Your task to perform on an android device: empty trash in google photos Image 0: 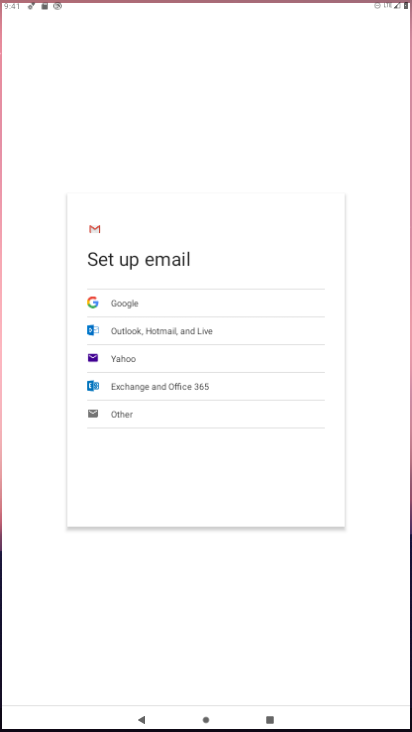
Step 0: drag from (287, 614) to (158, 131)
Your task to perform on an android device: empty trash in google photos Image 1: 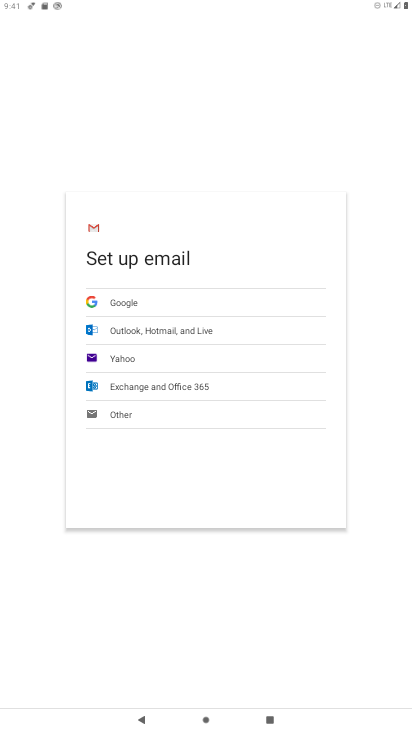
Step 1: press home button
Your task to perform on an android device: empty trash in google photos Image 2: 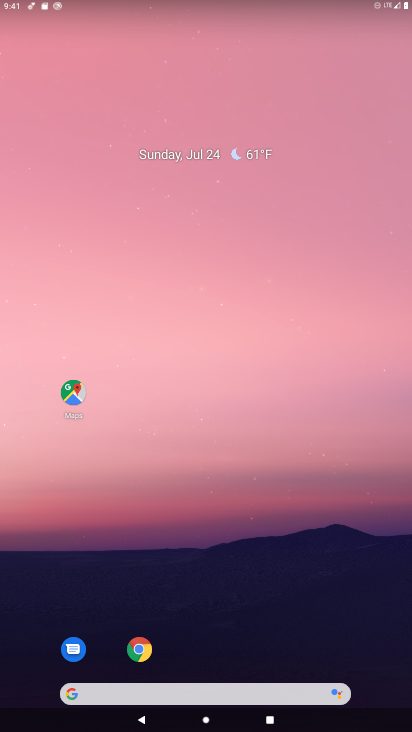
Step 2: click (241, 140)
Your task to perform on an android device: empty trash in google photos Image 3: 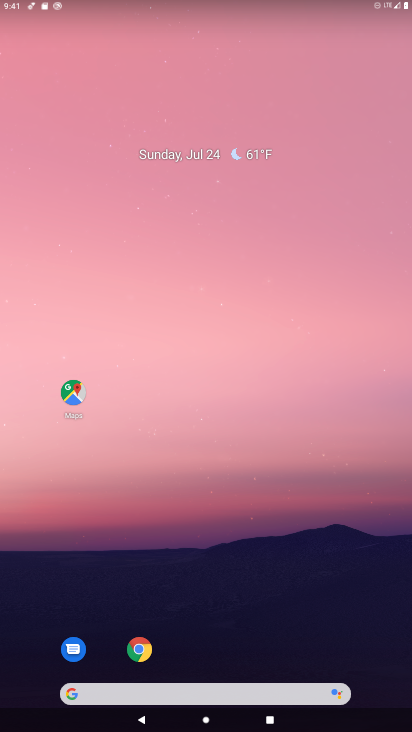
Step 3: drag from (283, 639) to (161, 139)
Your task to perform on an android device: empty trash in google photos Image 4: 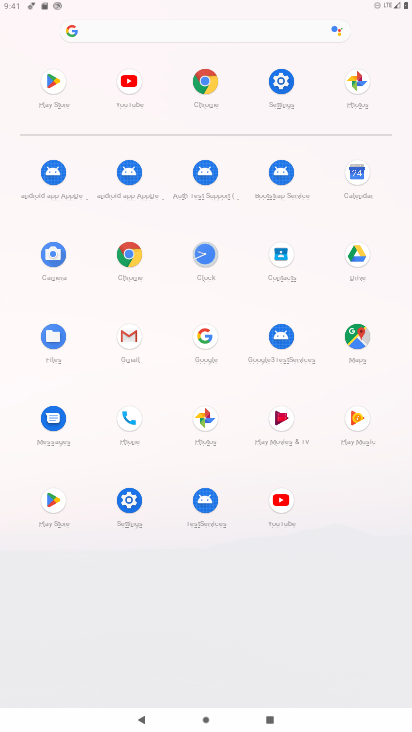
Step 4: click (195, 420)
Your task to perform on an android device: empty trash in google photos Image 5: 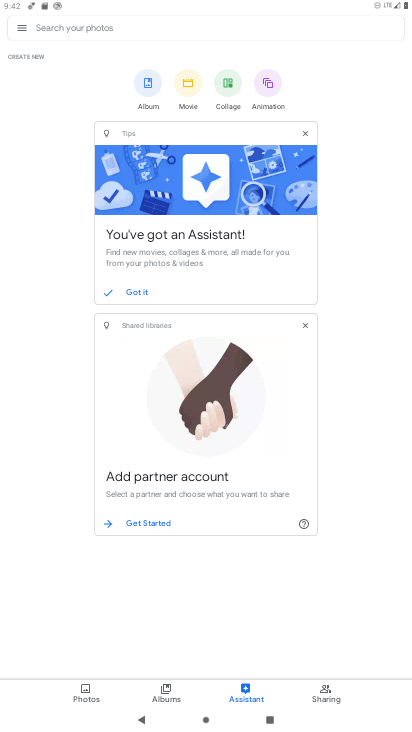
Step 5: click (24, 24)
Your task to perform on an android device: empty trash in google photos Image 6: 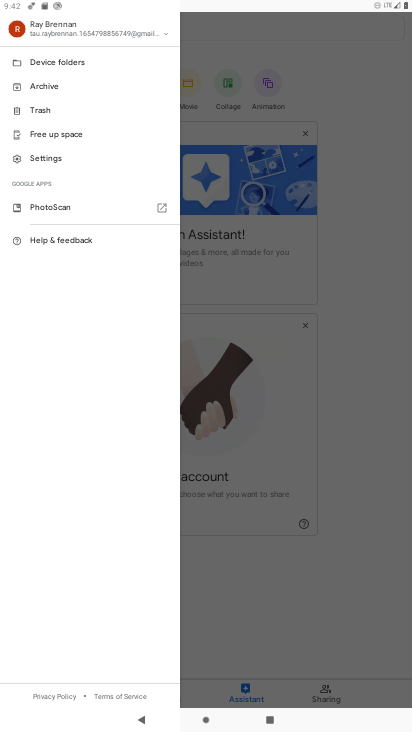
Step 6: click (49, 102)
Your task to perform on an android device: empty trash in google photos Image 7: 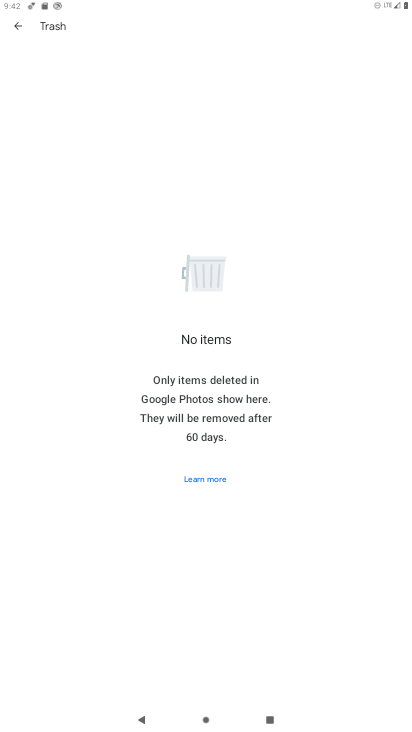
Step 7: task complete